Your task to perform on an android device: Open Reddit.com Image 0: 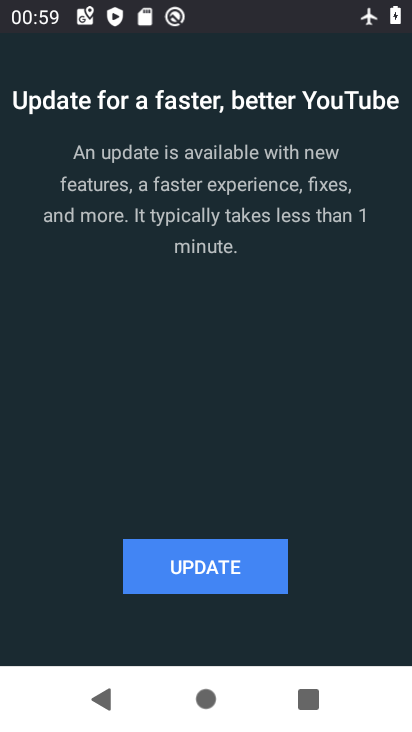
Step 0: press back button
Your task to perform on an android device: Open Reddit.com Image 1: 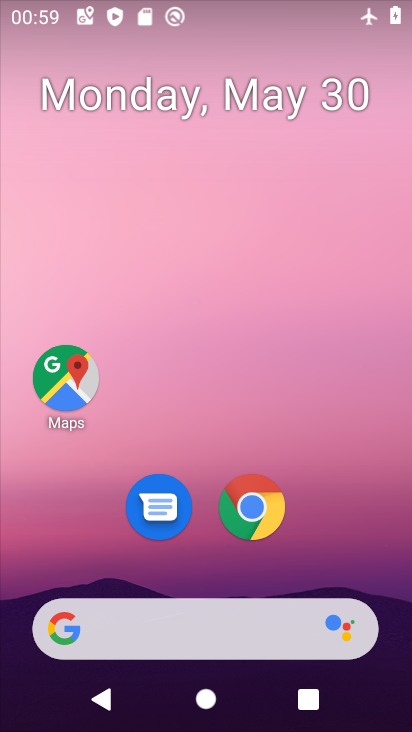
Step 1: click (262, 497)
Your task to perform on an android device: Open Reddit.com Image 2: 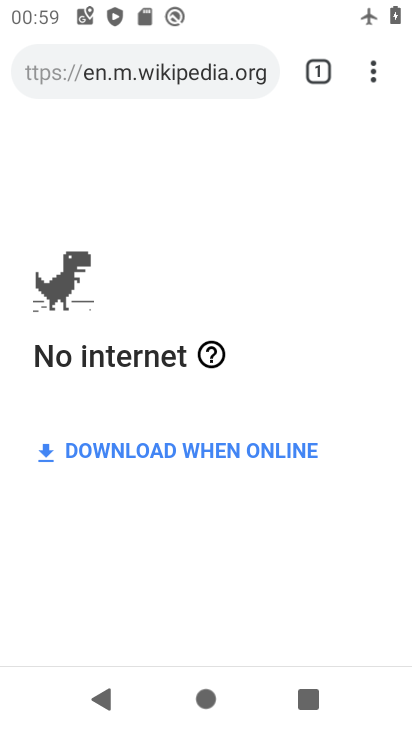
Step 2: click (370, 70)
Your task to perform on an android device: Open Reddit.com Image 3: 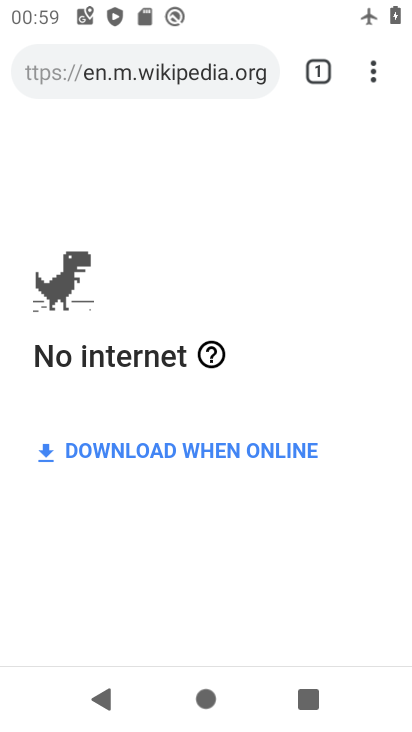
Step 3: click (368, 77)
Your task to perform on an android device: Open Reddit.com Image 4: 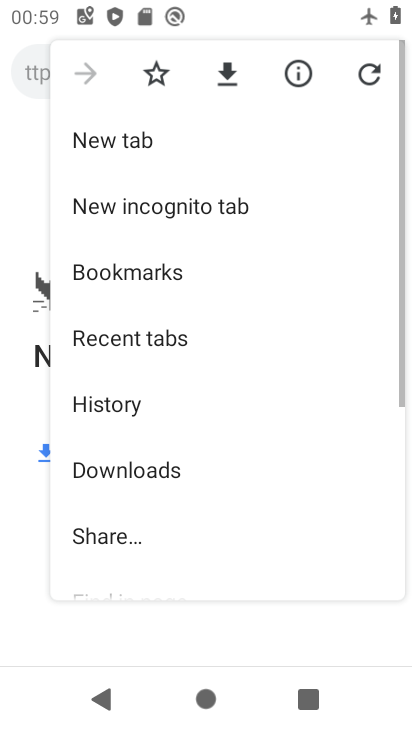
Step 4: click (125, 142)
Your task to perform on an android device: Open Reddit.com Image 5: 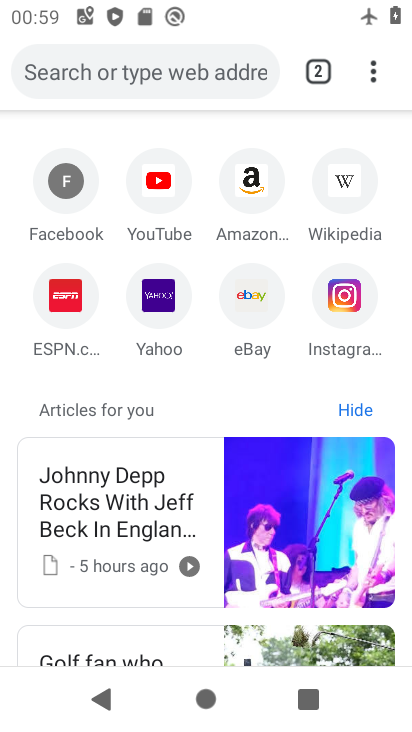
Step 5: click (165, 71)
Your task to perform on an android device: Open Reddit.com Image 6: 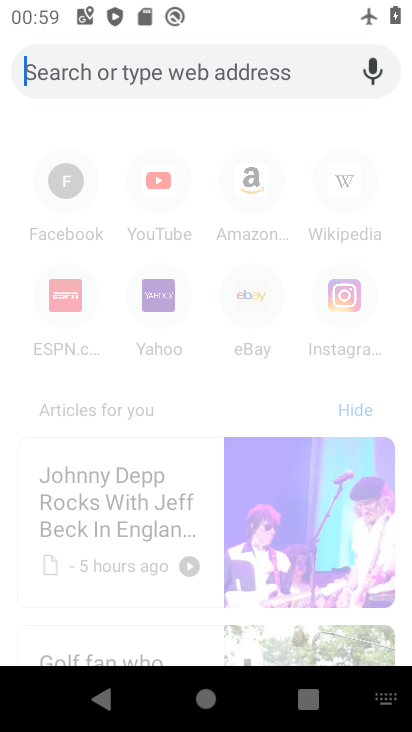
Step 6: type "Reddit.com"
Your task to perform on an android device: Open Reddit.com Image 7: 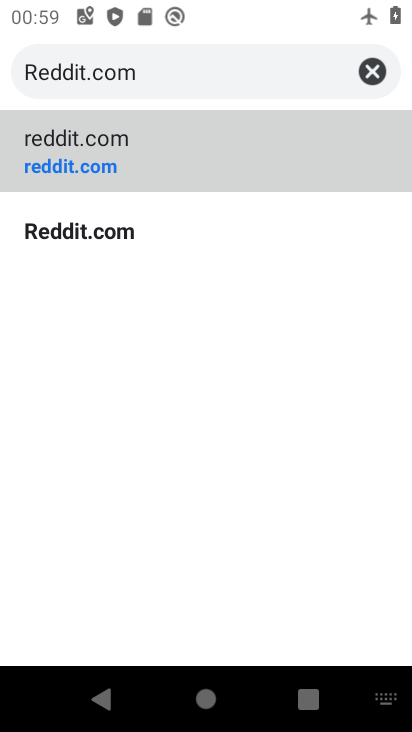
Step 7: click (138, 151)
Your task to perform on an android device: Open Reddit.com Image 8: 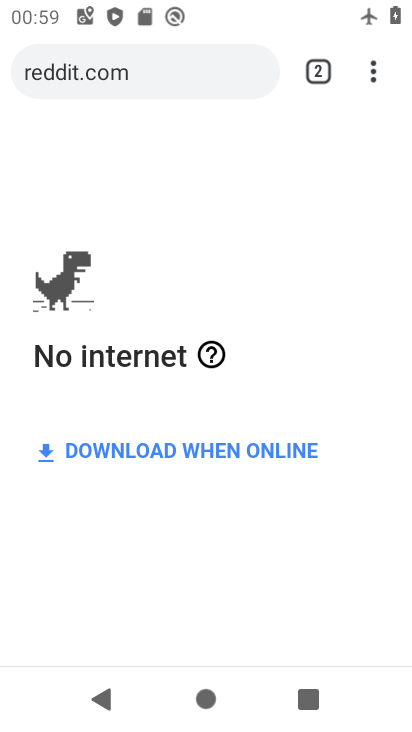
Step 8: task complete